Your task to perform on an android device: change notification settings in the gmail app Image 0: 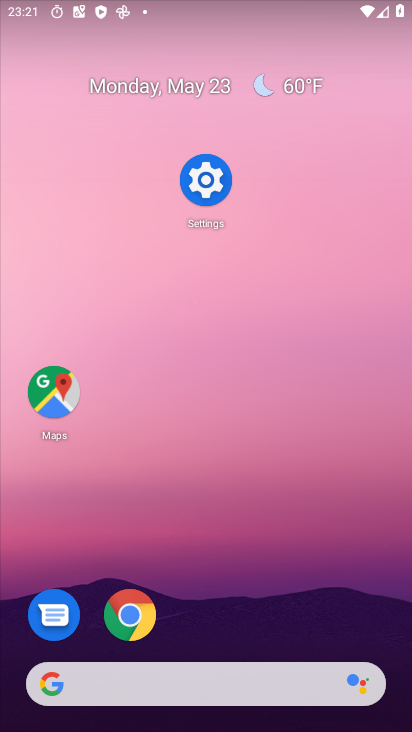
Step 0: drag from (218, 603) to (232, 98)
Your task to perform on an android device: change notification settings in the gmail app Image 1: 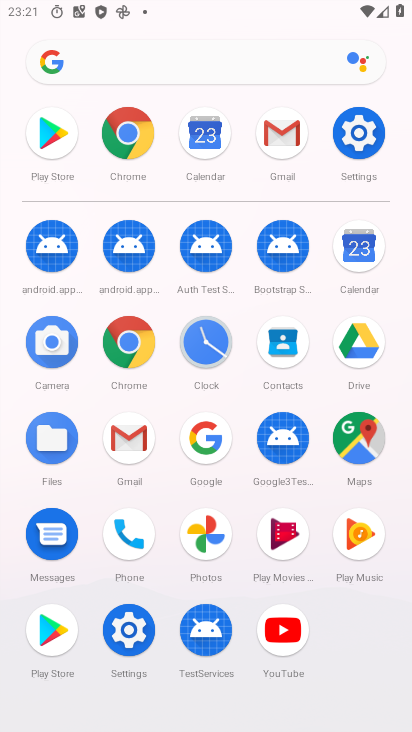
Step 1: click (127, 432)
Your task to perform on an android device: change notification settings in the gmail app Image 2: 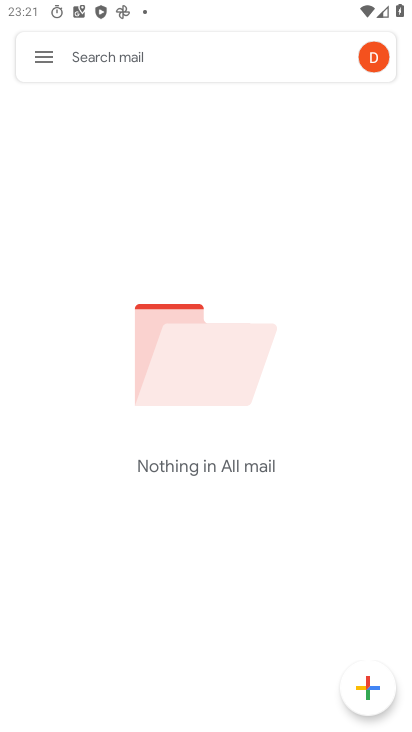
Step 2: click (54, 52)
Your task to perform on an android device: change notification settings in the gmail app Image 3: 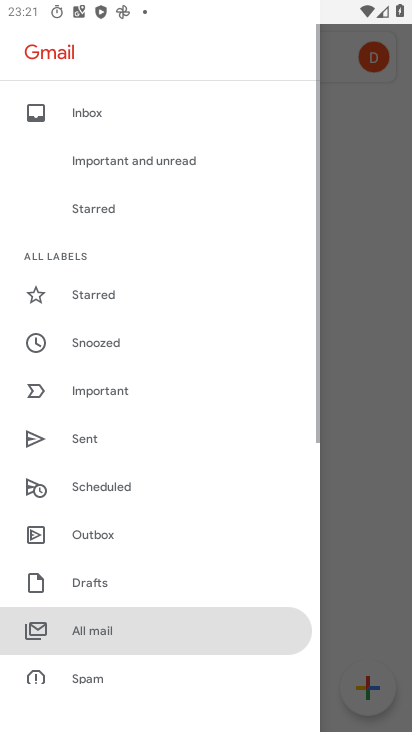
Step 3: drag from (189, 613) to (184, 47)
Your task to perform on an android device: change notification settings in the gmail app Image 4: 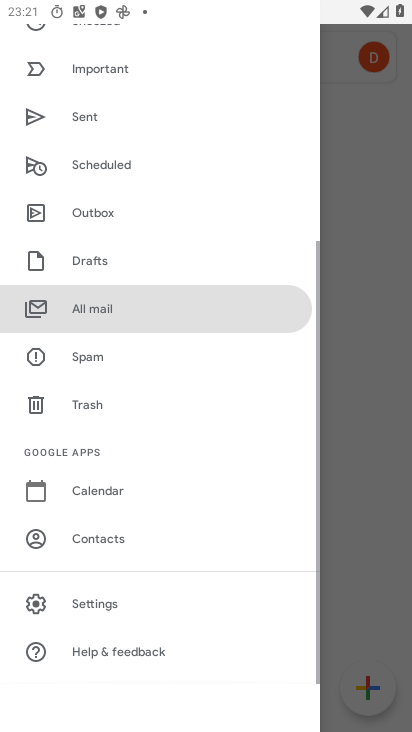
Step 4: click (133, 593)
Your task to perform on an android device: change notification settings in the gmail app Image 5: 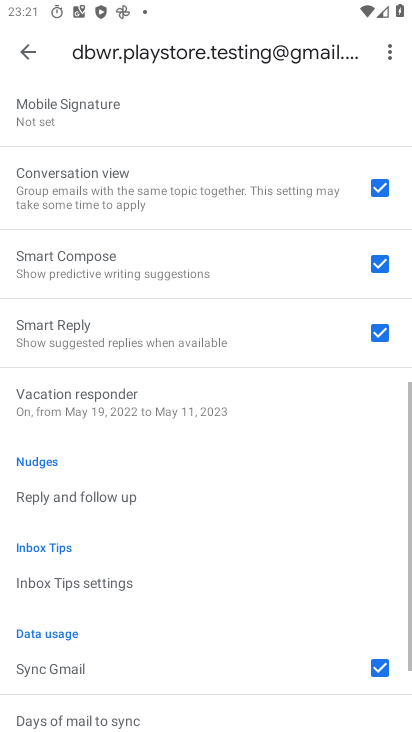
Step 5: drag from (201, 516) to (238, 700)
Your task to perform on an android device: change notification settings in the gmail app Image 6: 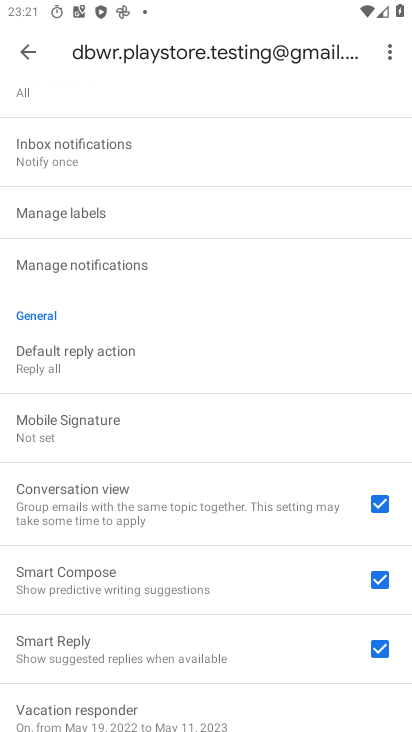
Step 6: drag from (170, 181) to (167, 398)
Your task to perform on an android device: change notification settings in the gmail app Image 7: 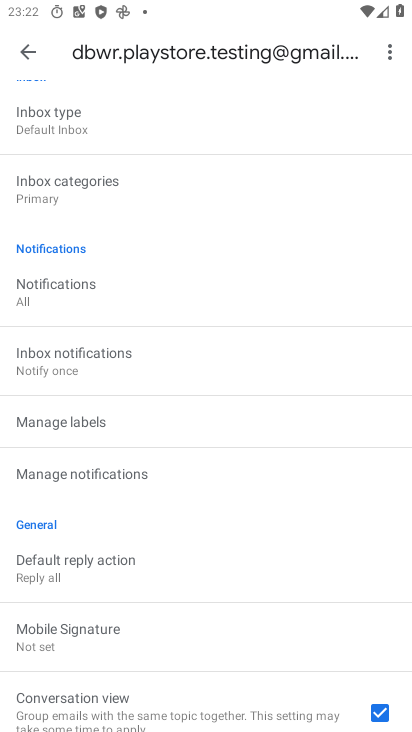
Step 7: click (117, 287)
Your task to perform on an android device: change notification settings in the gmail app Image 8: 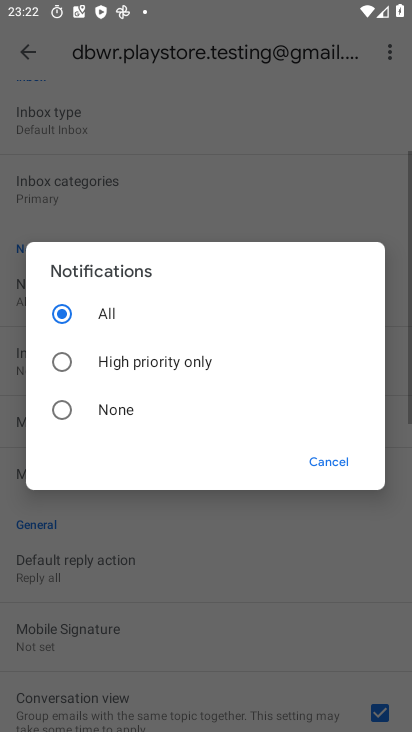
Step 8: click (117, 408)
Your task to perform on an android device: change notification settings in the gmail app Image 9: 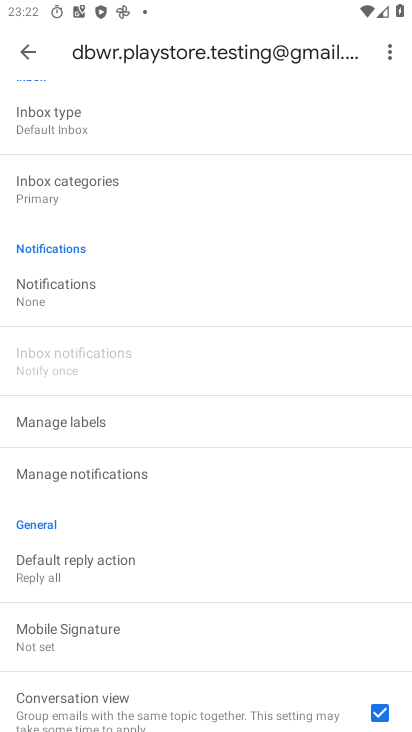
Step 9: task complete